Your task to perform on an android device: turn on translation in the chrome app Image 0: 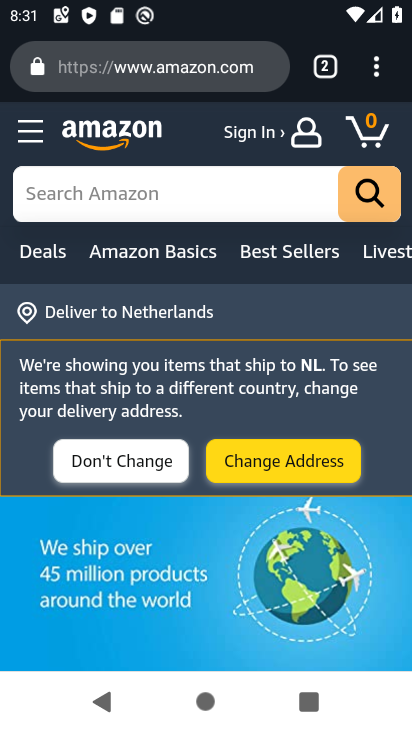
Step 0: press home button
Your task to perform on an android device: turn on translation in the chrome app Image 1: 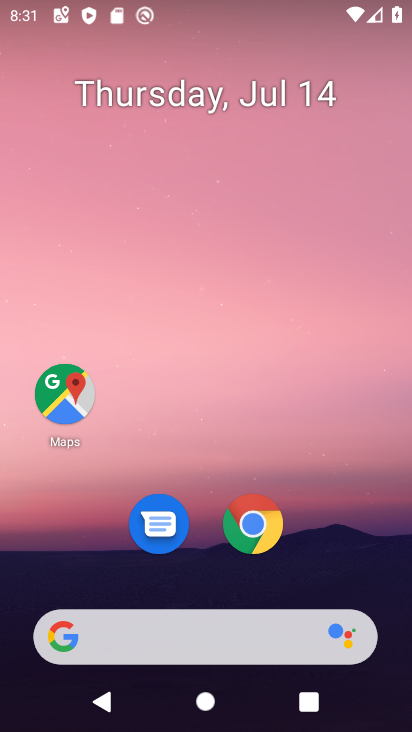
Step 1: click (270, 522)
Your task to perform on an android device: turn on translation in the chrome app Image 2: 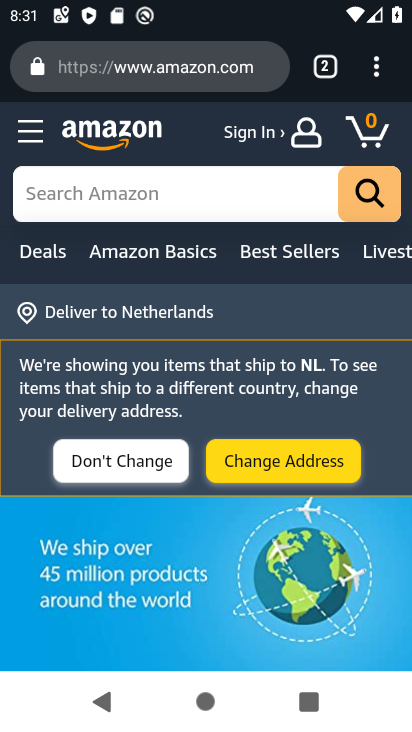
Step 2: click (378, 77)
Your task to perform on an android device: turn on translation in the chrome app Image 3: 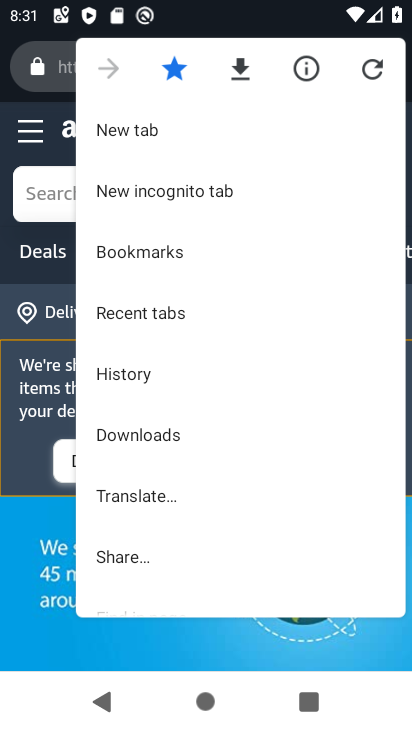
Step 3: drag from (193, 474) to (242, 69)
Your task to perform on an android device: turn on translation in the chrome app Image 4: 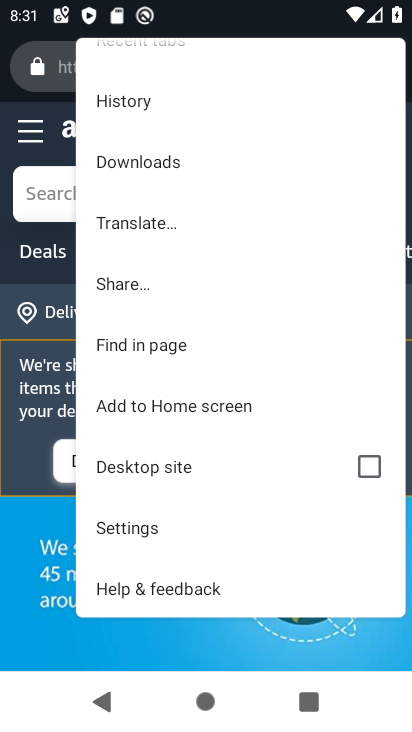
Step 4: click (157, 529)
Your task to perform on an android device: turn on translation in the chrome app Image 5: 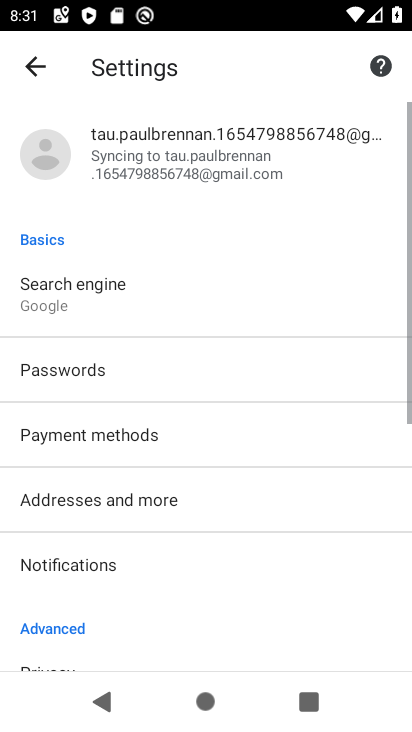
Step 5: drag from (232, 561) to (315, 172)
Your task to perform on an android device: turn on translation in the chrome app Image 6: 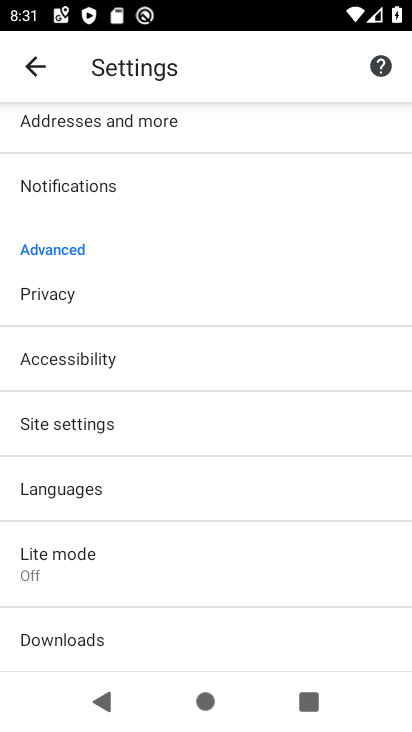
Step 6: click (207, 483)
Your task to perform on an android device: turn on translation in the chrome app Image 7: 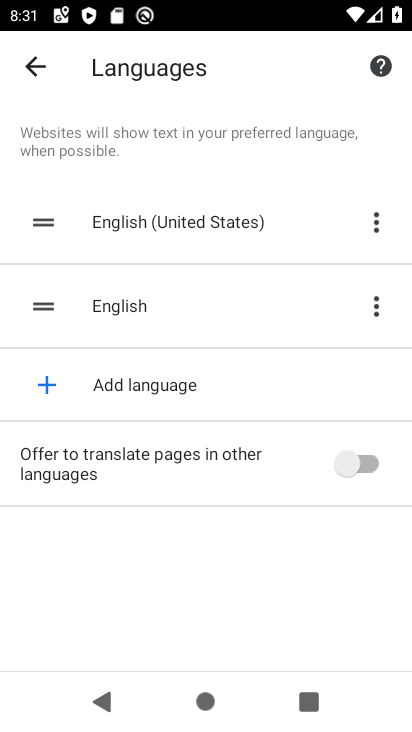
Step 7: click (363, 460)
Your task to perform on an android device: turn on translation in the chrome app Image 8: 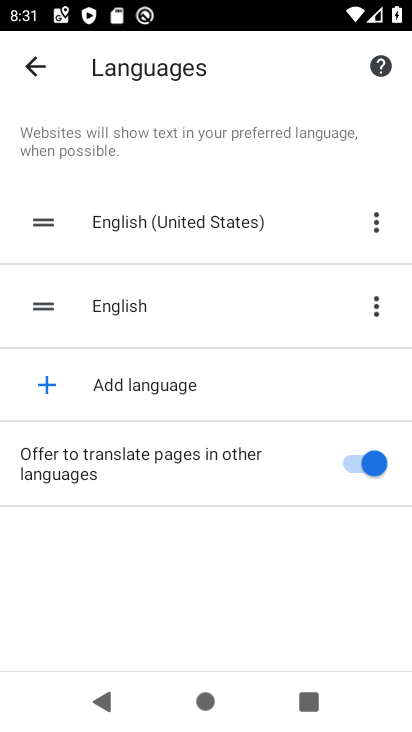
Step 8: task complete